Your task to perform on an android device: Open location settings Image 0: 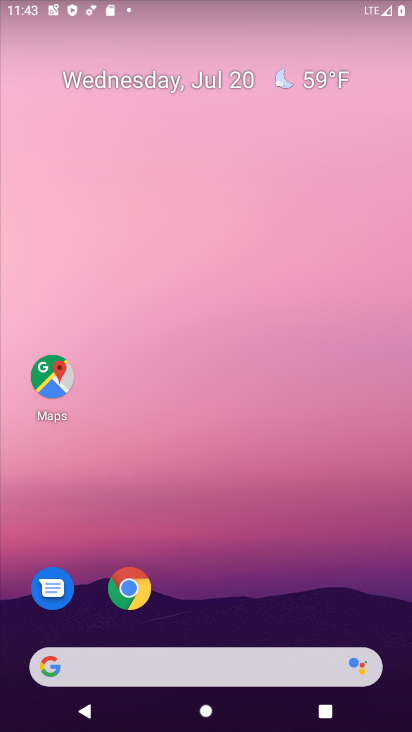
Step 0: drag from (212, 345) to (248, 491)
Your task to perform on an android device: Open location settings Image 1: 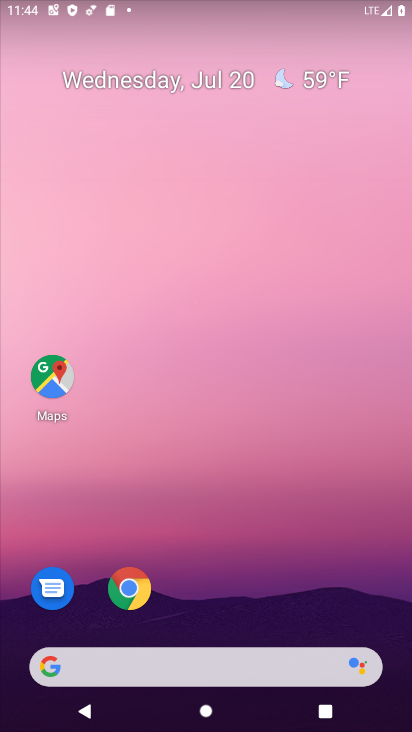
Step 1: drag from (225, 582) to (152, 0)
Your task to perform on an android device: Open location settings Image 2: 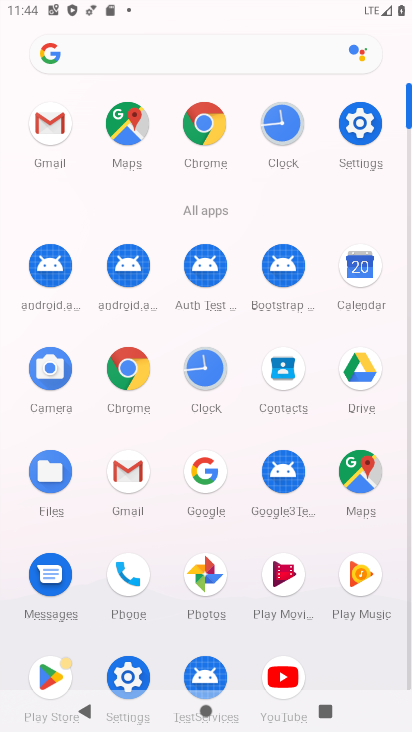
Step 2: click (354, 123)
Your task to perform on an android device: Open location settings Image 3: 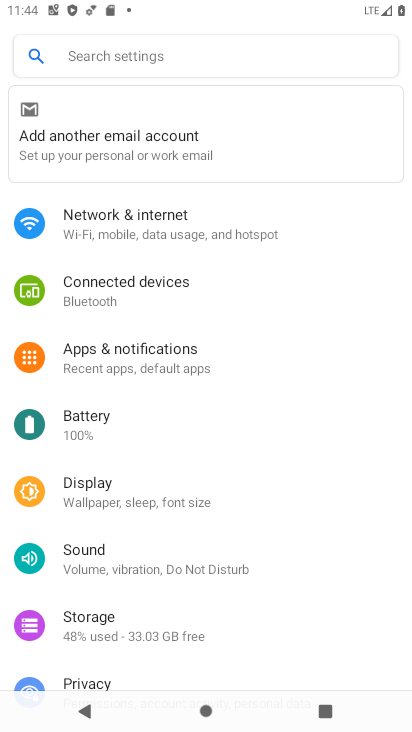
Step 3: drag from (203, 617) to (217, 284)
Your task to perform on an android device: Open location settings Image 4: 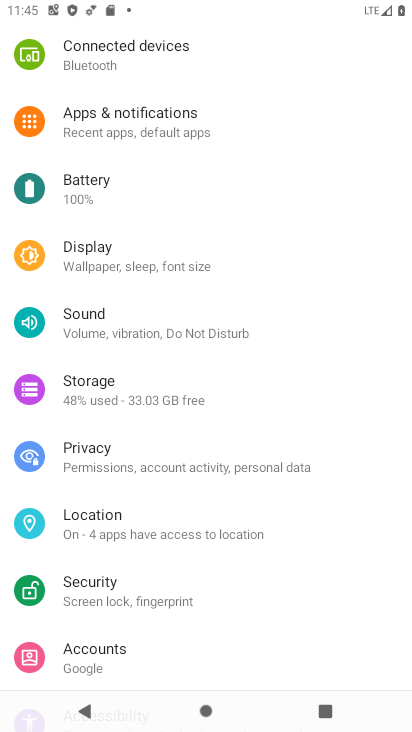
Step 4: click (128, 523)
Your task to perform on an android device: Open location settings Image 5: 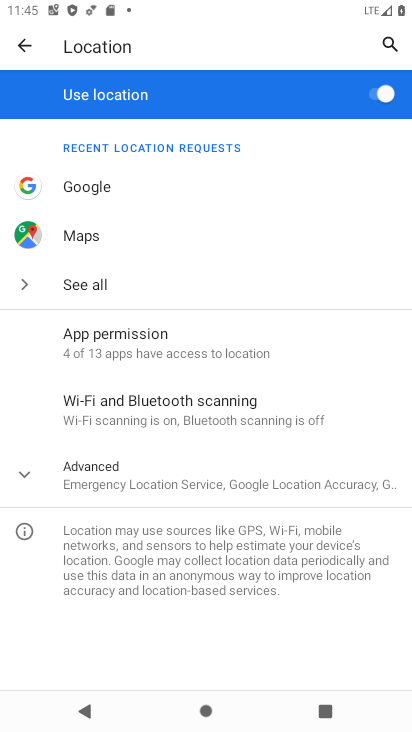
Step 5: task complete